Your task to perform on an android device: Open the calendar and show me this week's events? Image 0: 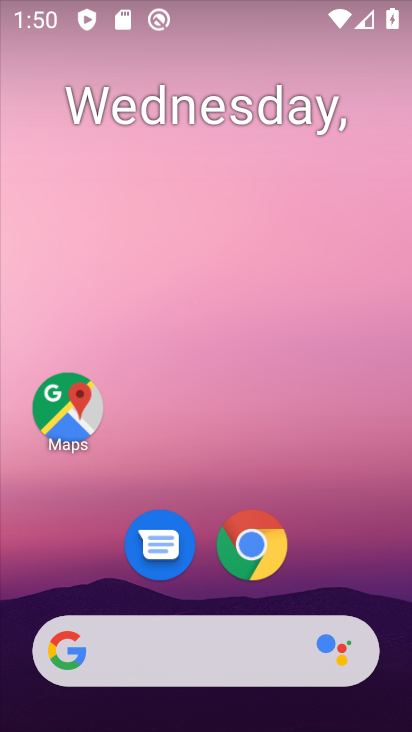
Step 0: drag from (324, 542) to (311, 152)
Your task to perform on an android device: Open the calendar and show me this week's events? Image 1: 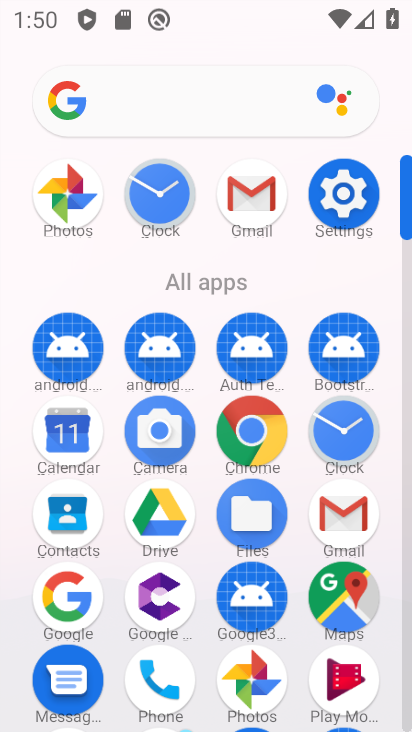
Step 1: click (71, 443)
Your task to perform on an android device: Open the calendar and show me this week's events? Image 2: 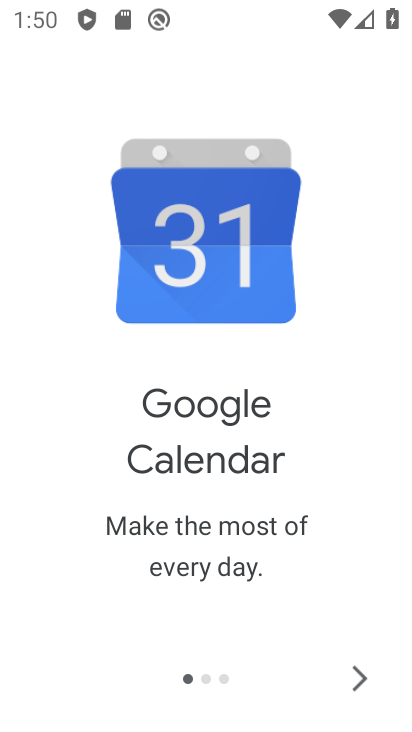
Step 2: click (345, 679)
Your task to perform on an android device: Open the calendar and show me this week's events? Image 3: 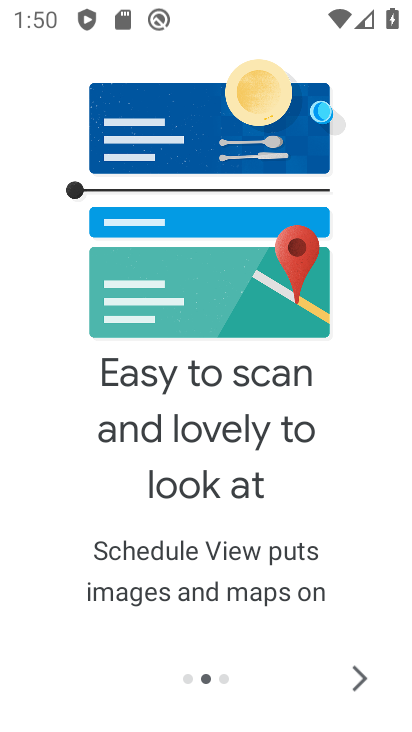
Step 3: click (345, 679)
Your task to perform on an android device: Open the calendar and show me this week's events? Image 4: 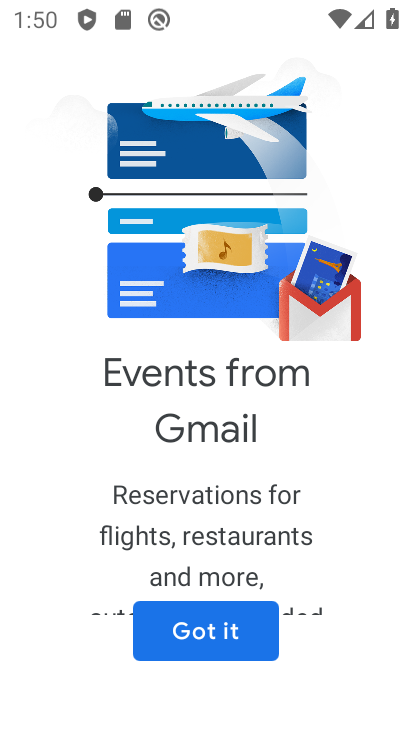
Step 4: click (268, 643)
Your task to perform on an android device: Open the calendar and show me this week's events? Image 5: 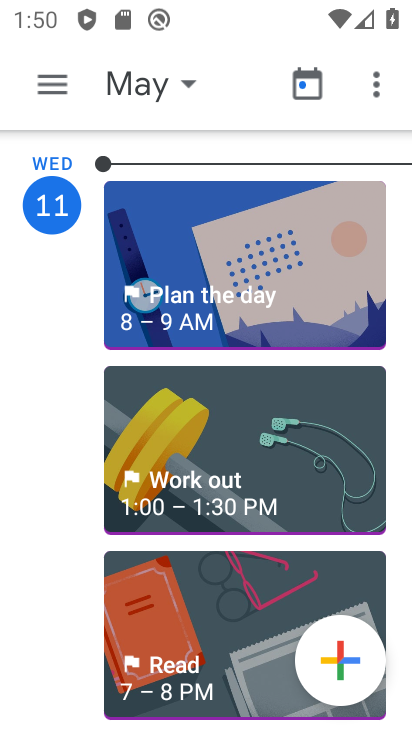
Step 5: click (54, 83)
Your task to perform on an android device: Open the calendar and show me this week's events? Image 6: 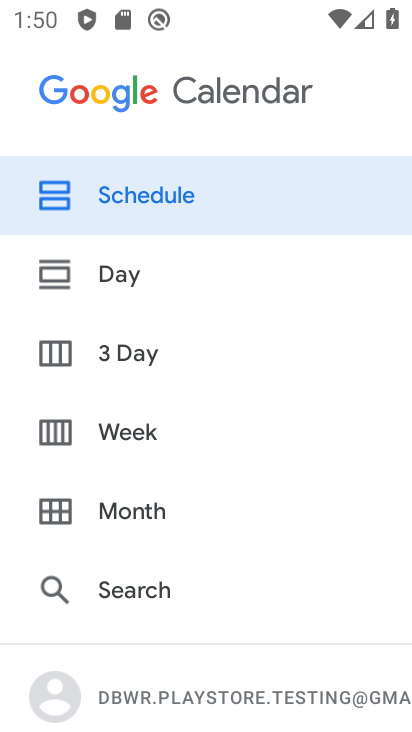
Step 6: click (152, 423)
Your task to perform on an android device: Open the calendar and show me this week's events? Image 7: 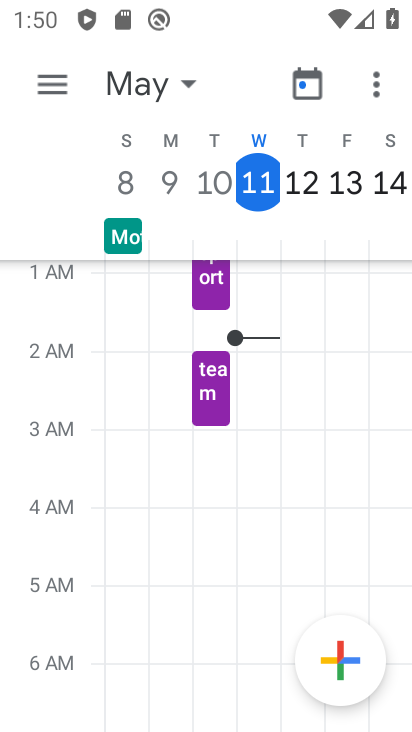
Step 7: click (401, 176)
Your task to perform on an android device: Open the calendar and show me this week's events? Image 8: 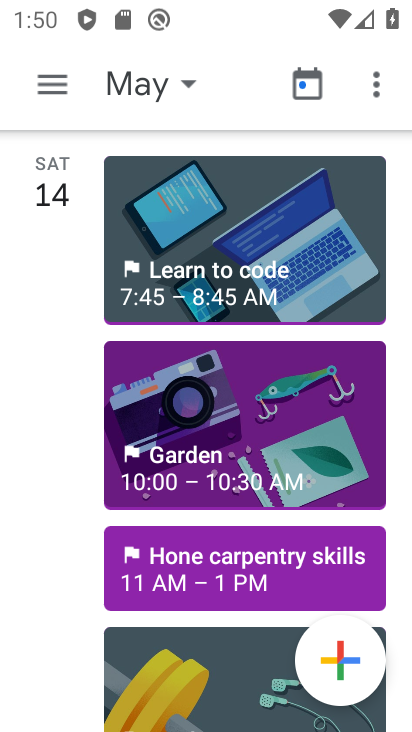
Step 8: task complete